Your task to perform on an android device: see tabs open on other devices in the chrome app Image 0: 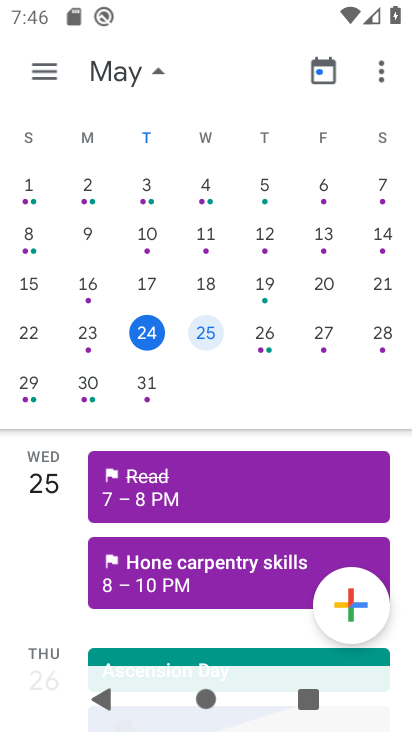
Step 0: press home button
Your task to perform on an android device: see tabs open on other devices in the chrome app Image 1: 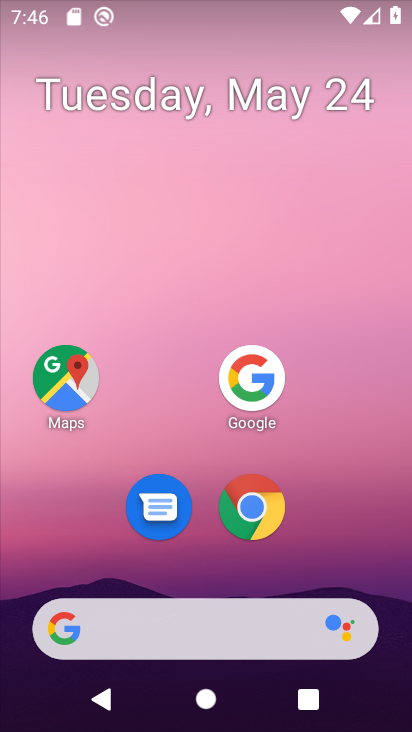
Step 1: click (247, 512)
Your task to perform on an android device: see tabs open on other devices in the chrome app Image 2: 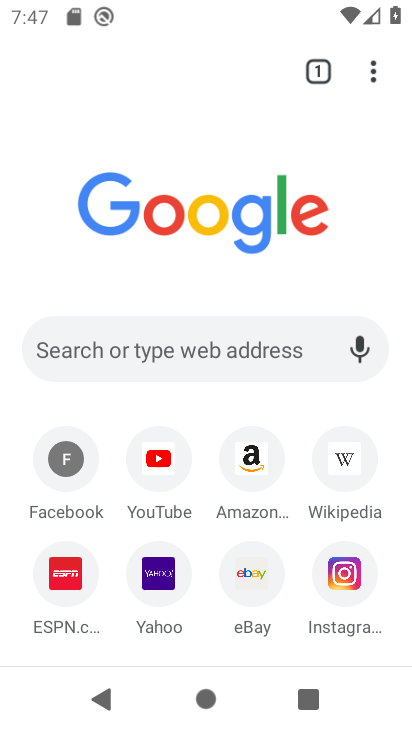
Step 2: task complete